Your task to perform on an android device: Go to internet settings Image 0: 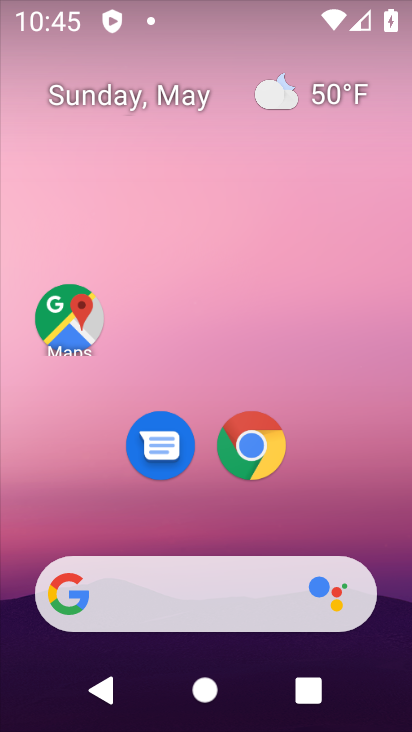
Step 0: drag from (239, 517) to (265, 127)
Your task to perform on an android device: Go to internet settings Image 1: 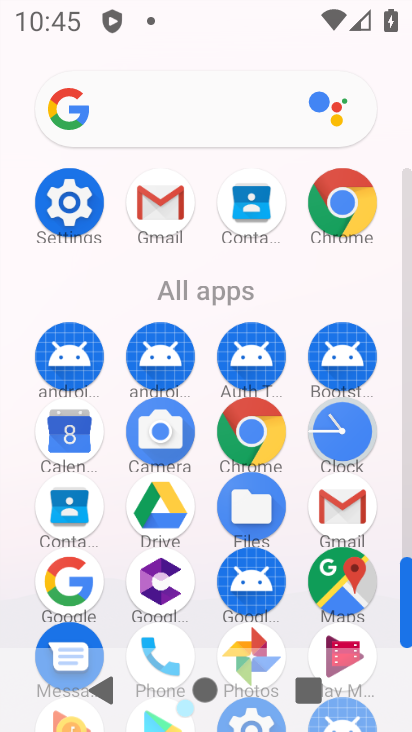
Step 1: click (75, 220)
Your task to perform on an android device: Go to internet settings Image 2: 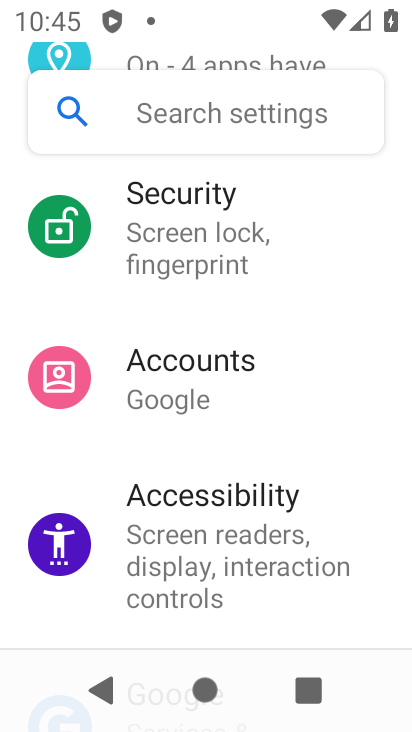
Step 2: drag from (238, 248) to (235, 624)
Your task to perform on an android device: Go to internet settings Image 3: 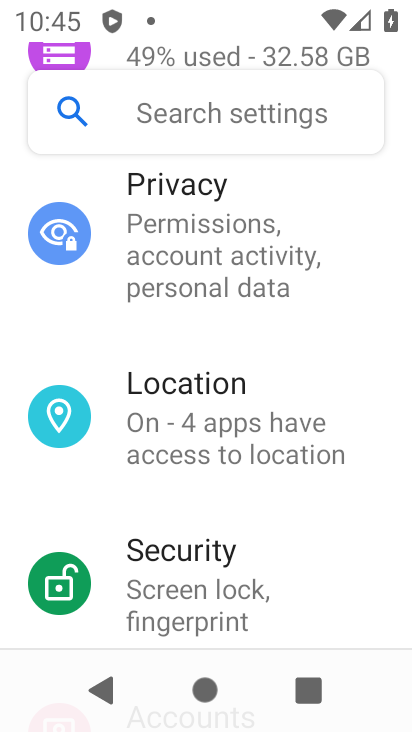
Step 3: drag from (270, 308) to (255, 628)
Your task to perform on an android device: Go to internet settings Image 4: 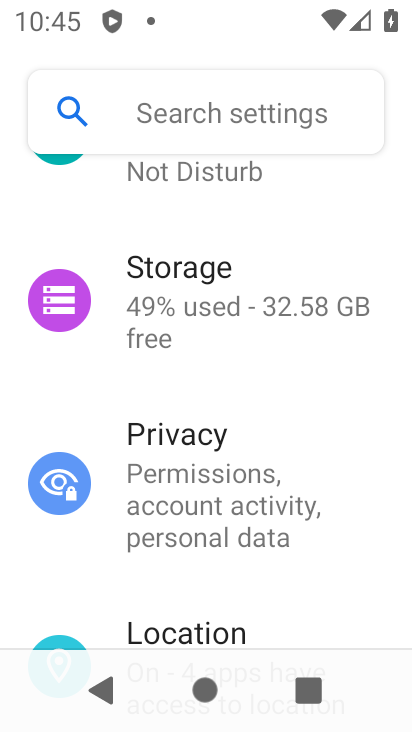
Step 4: drag from (238, 237) to (194, 661)
Your task to perform on an android device: Go to internet settings Image 5: 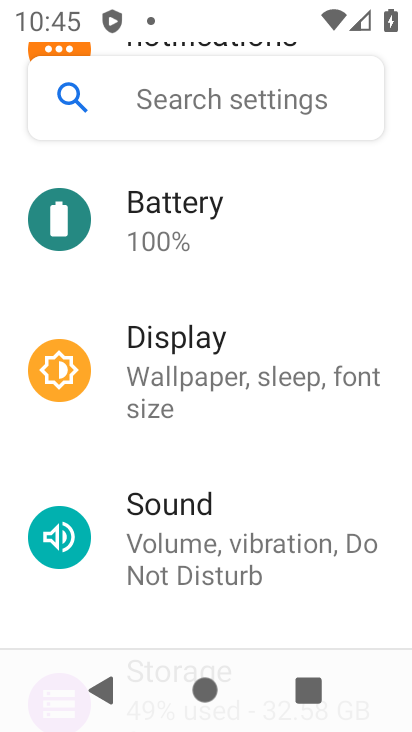
Step 5: drag from (215, 252) to (198, 601)
Your task to perform on an android device: Go to internet settings Image 6: 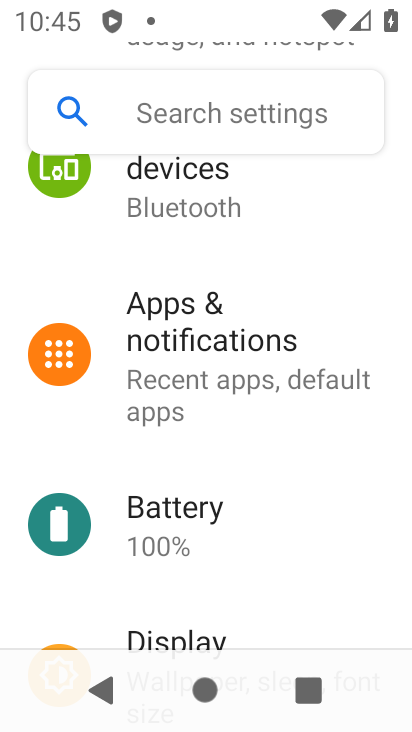
Step 6: drag from (200, 220) to (204, 722)
Your task to perform on an android device: Go to internet settings Image 7: 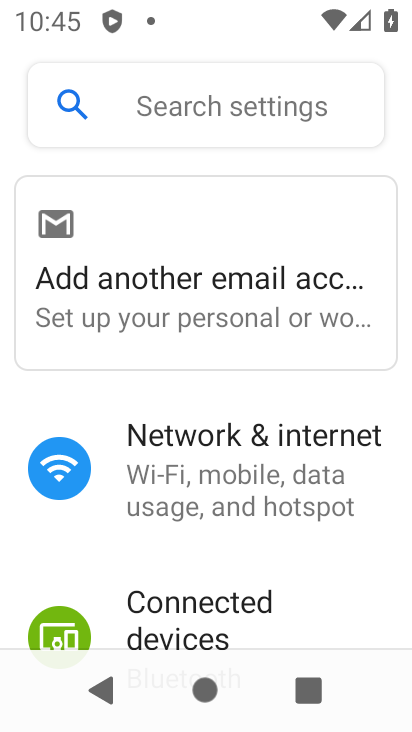
Step 7: click (198, 494)
Your task to perform on an android device: Go to internet settings Image 8: 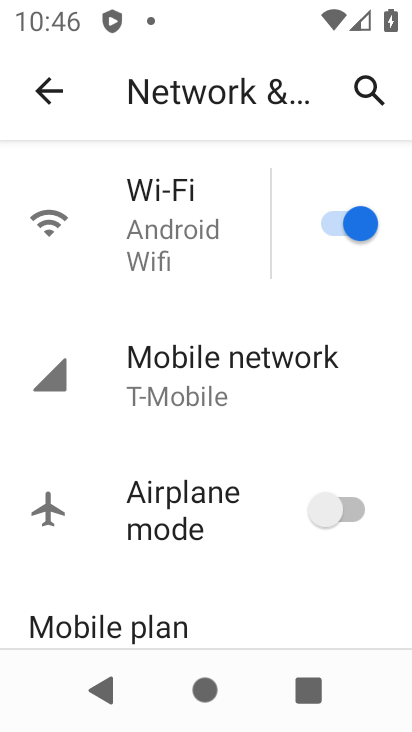
Step 8: task complete